Your task to perform on an android device: Open network settings Image 0: 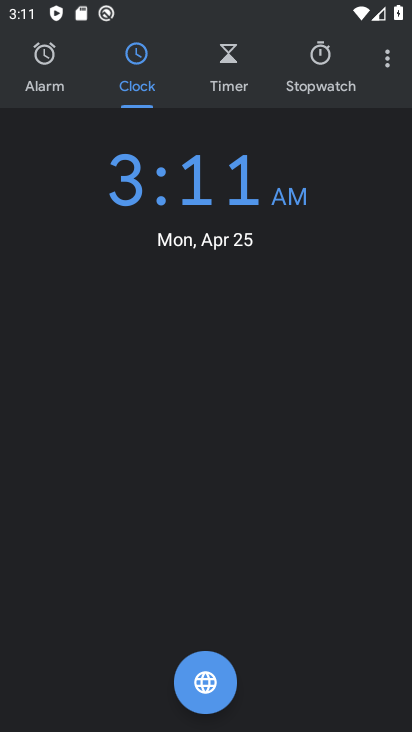
Step 0: press home button
Your task to perform on an android device: Open network settings Image 1: 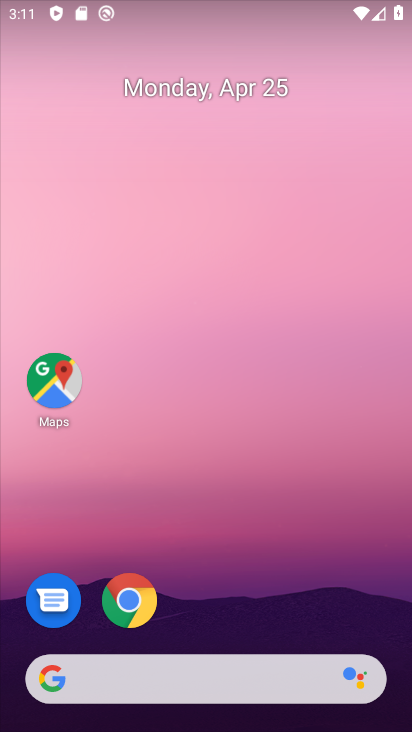
Step 1: drag from (259, 578) to (242, 2)
Your task to perform on an android device: Open network settings Image 2: 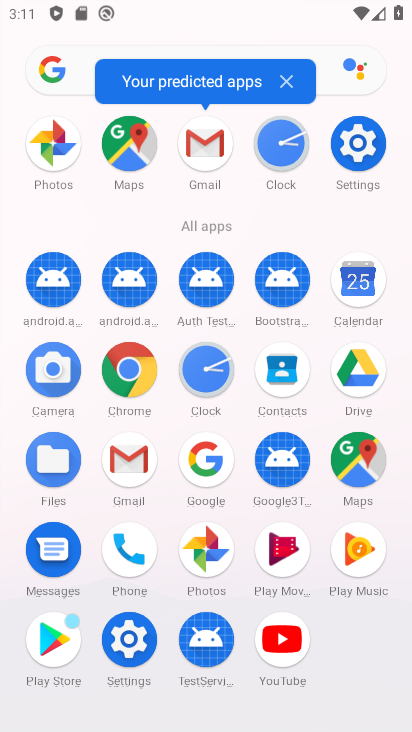
Step 2: click (366, 147)
Your task to perform on an android device: Open network settings Image 3: 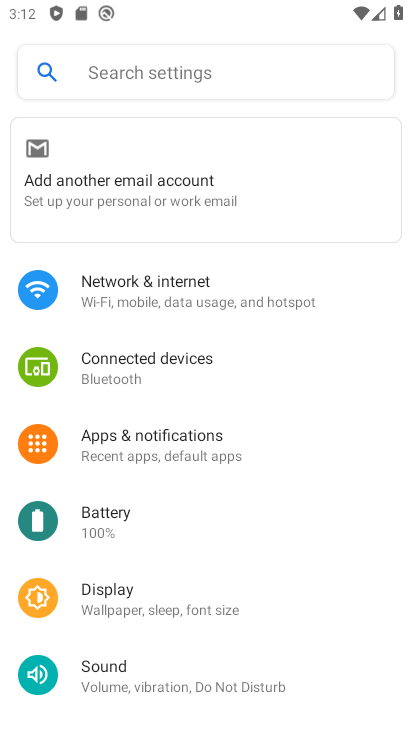
Step 3: click (359, 141)
Your task to perform on an android device: Open network settings Image 4: 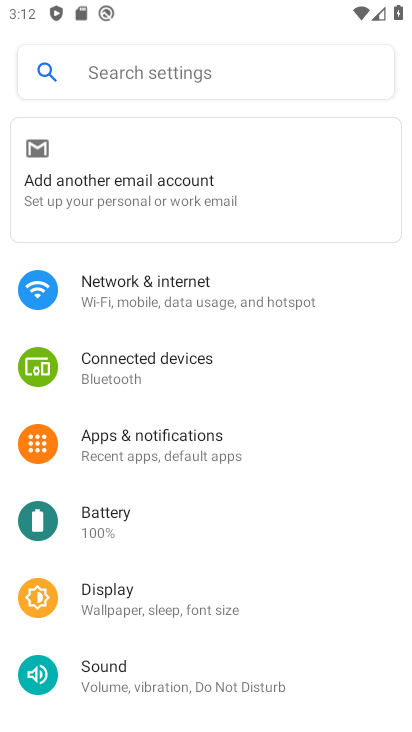
Step 4: click (214, 302)
Your task to perform on an android device: Open network settings Image 5: 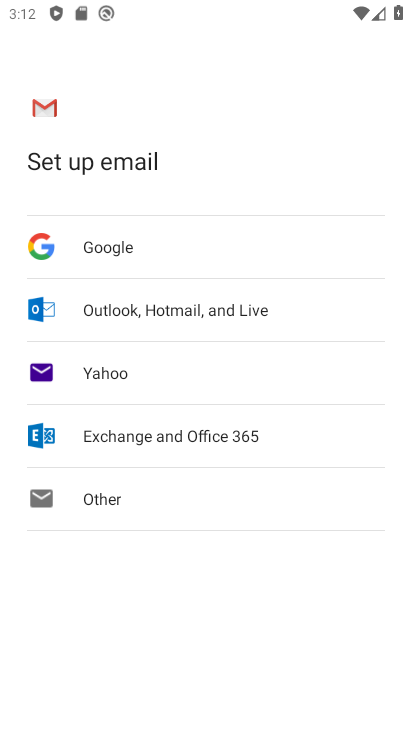
Step 5: press back button
Your task to perform on an android device: Open network settings Image 6: 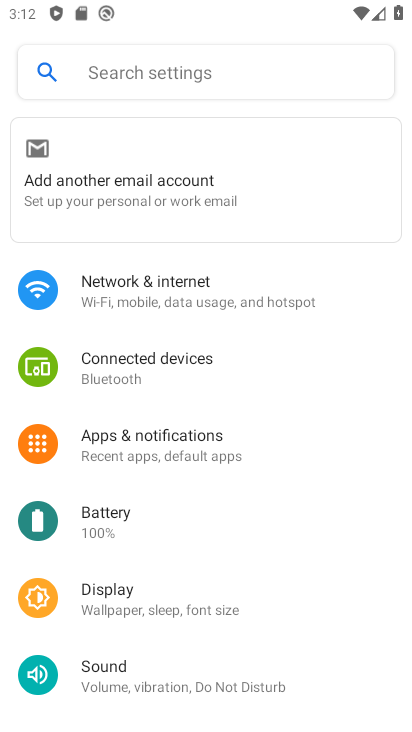
Step 6: click (298, 304)
Your task to perform on an android device: Open network settings Image 7: 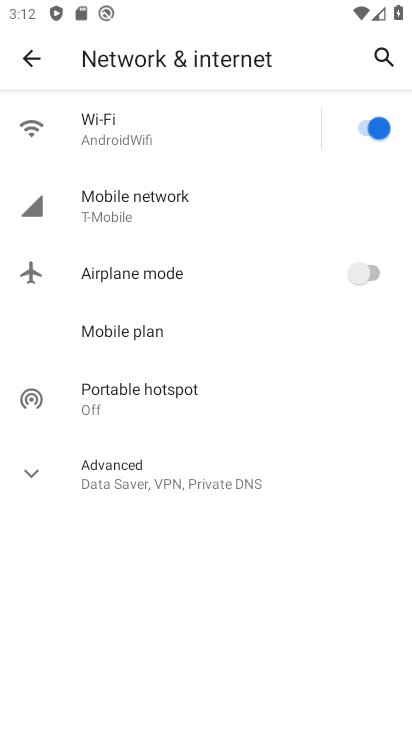
Step 7: task complete